Your task to perform on an android device: turn on priority inbox in the gmail app Image 0: 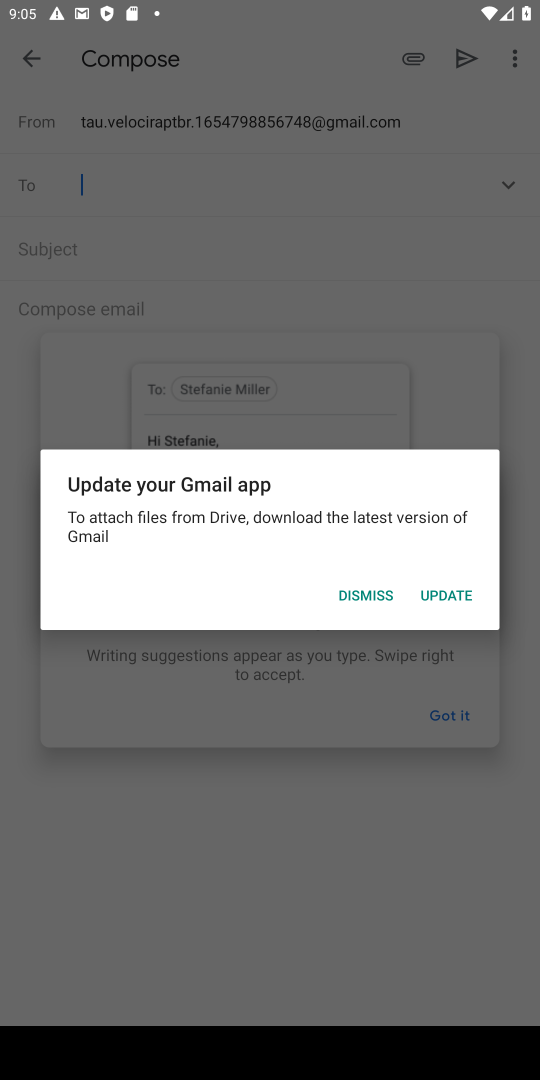
Step 0: click (449, 726)
Your task to perform on an android device: turn on priority inbox in the gmail app Image 1: 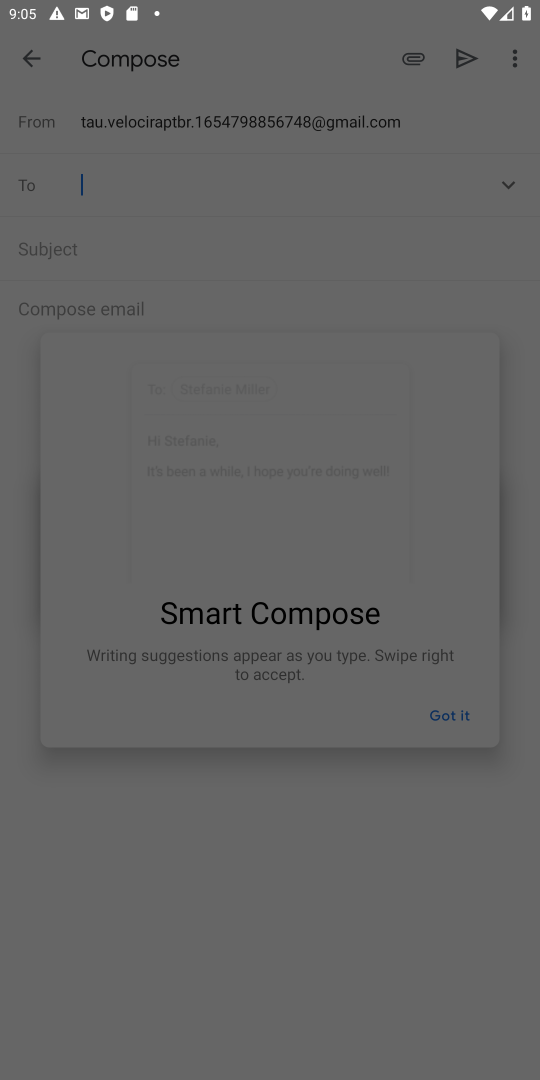
Step 1: click (406, 824)
Your task to perform on an android device: turn on priority inbox in the gmail app Image 2: 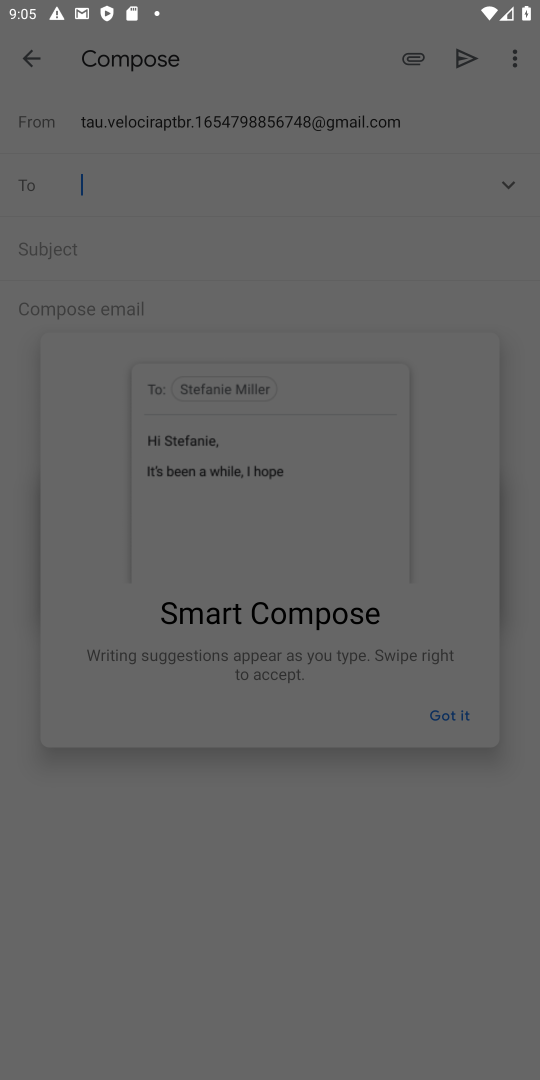
Step 2: click (457, 718)
Your task to perform on an android device: turn on priority inbox in the gmail app Image 3: 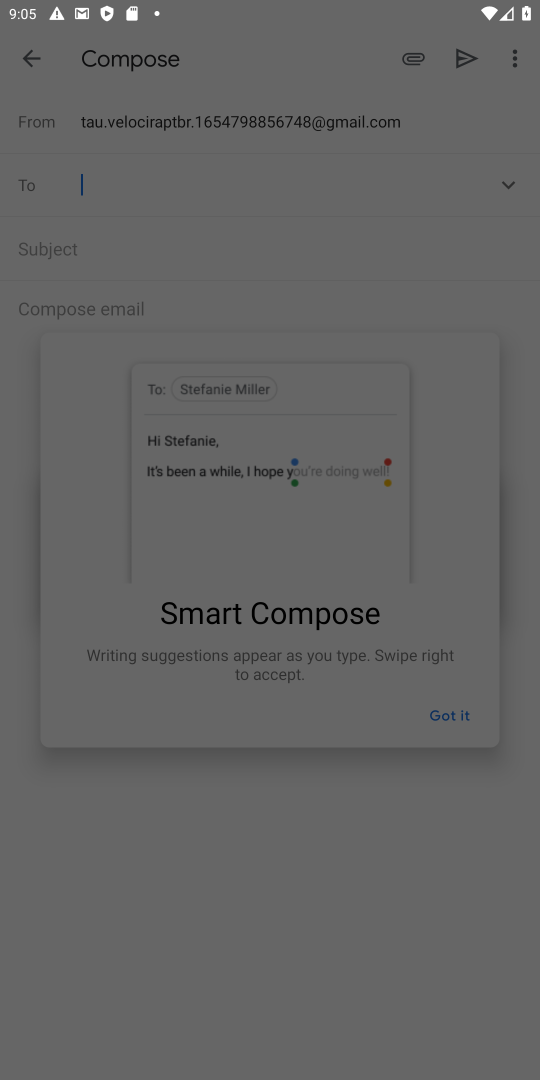
Step 3: click (457, 718)
Your task to perform on an android device: turn on priority inbox in the gmail app Image 4: 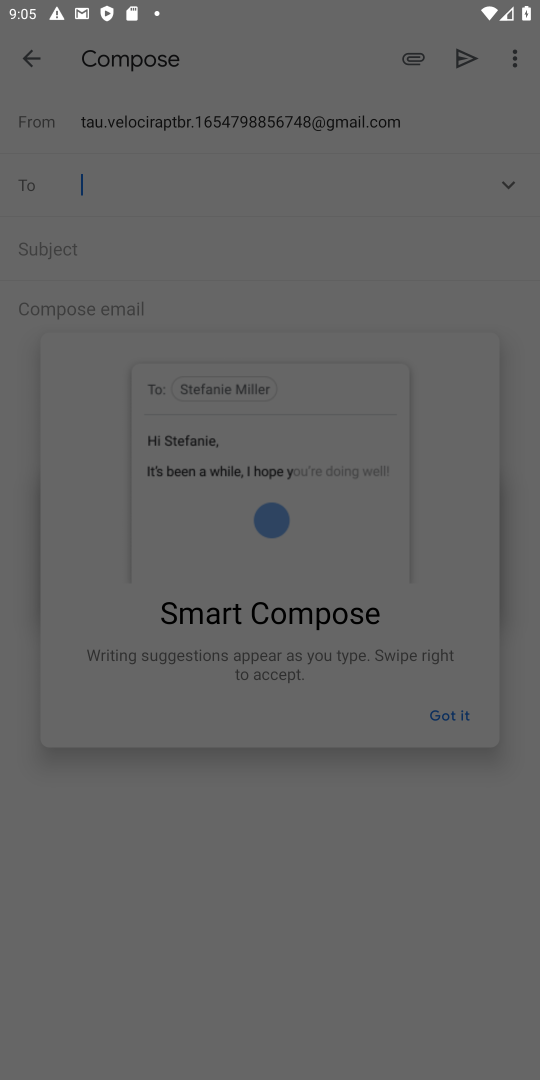
Step 4: press home button
Your task to perform on an android device: turn on priority inbox in the gmail app Image 5: 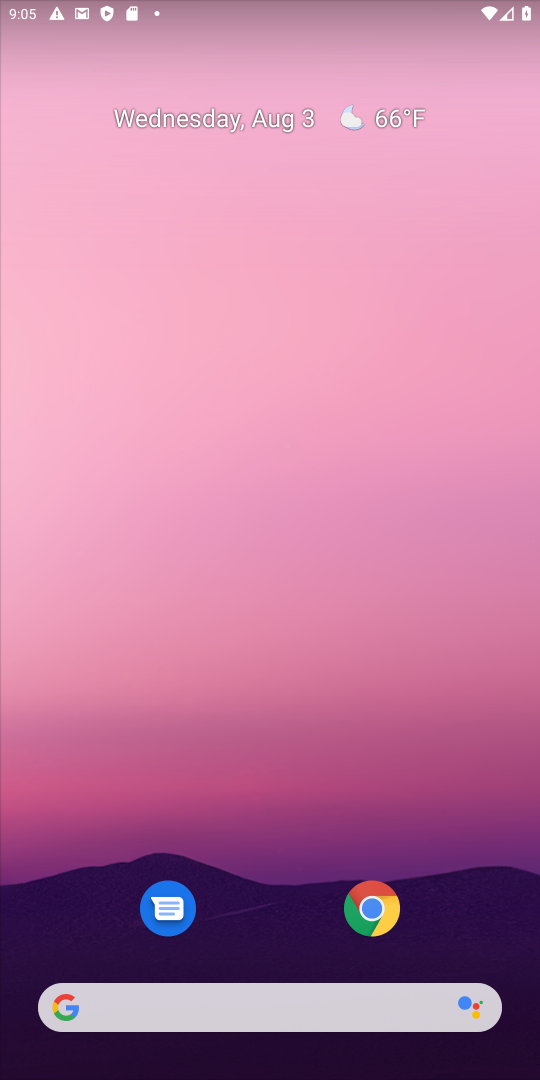
Step 5: drag from (262, 1009) to (351, 70)
Your task to perform on an android device: turn on priority inbox in the gmail app Image 6: 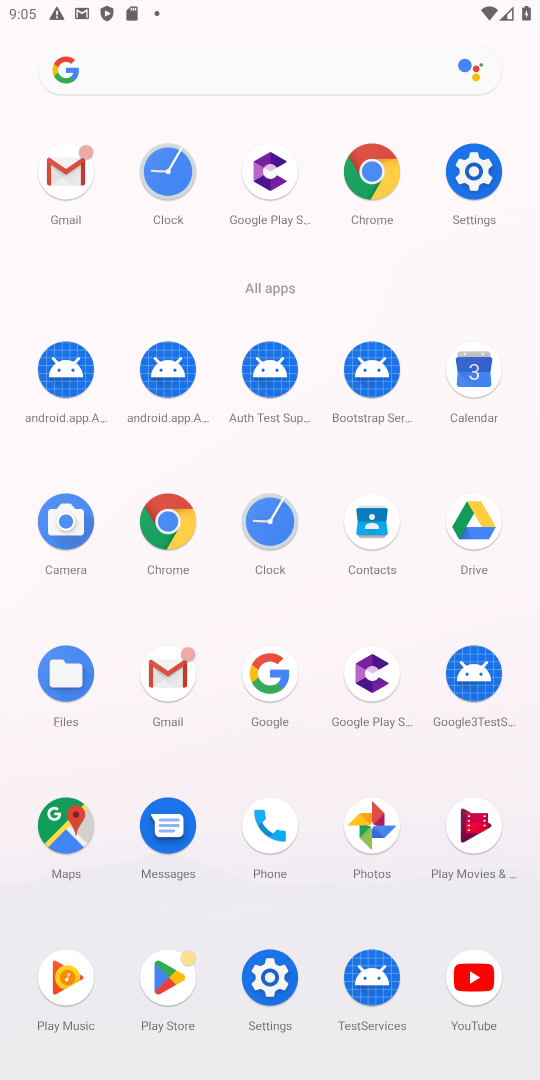
Step 6: click (175, 667)
Your task to perform on an android device: turn on priority inbox in the gmail app Image 7: 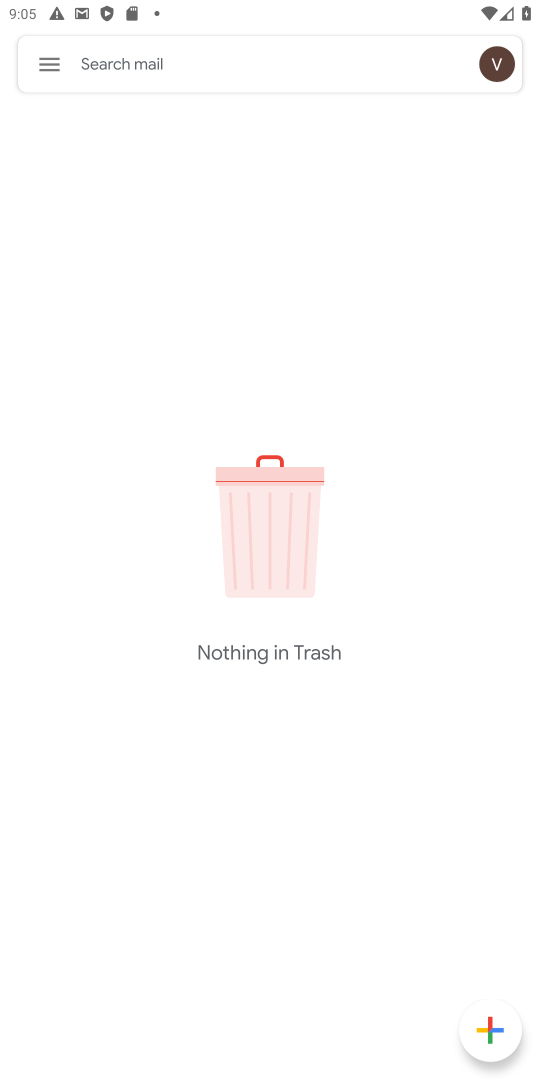
Step 7: click (45, 61)
Your task to perform on an android device: turn on priority inbox in the gmail app Image 8: 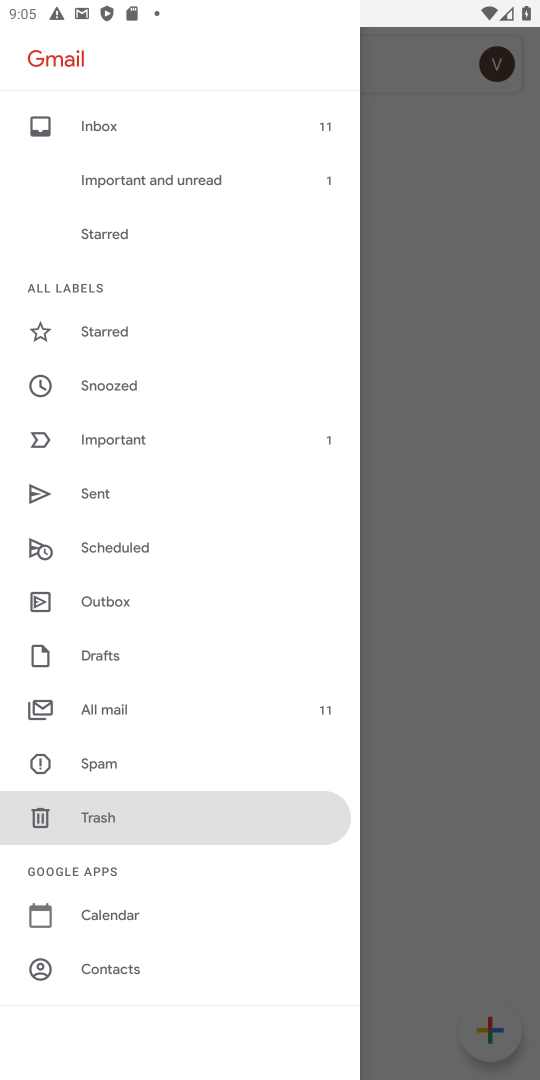
Step 8: drag from (178, 877) to (202, 509)
Your task to perform on an android device: turn on priority inbox in the gmail app Image 9: 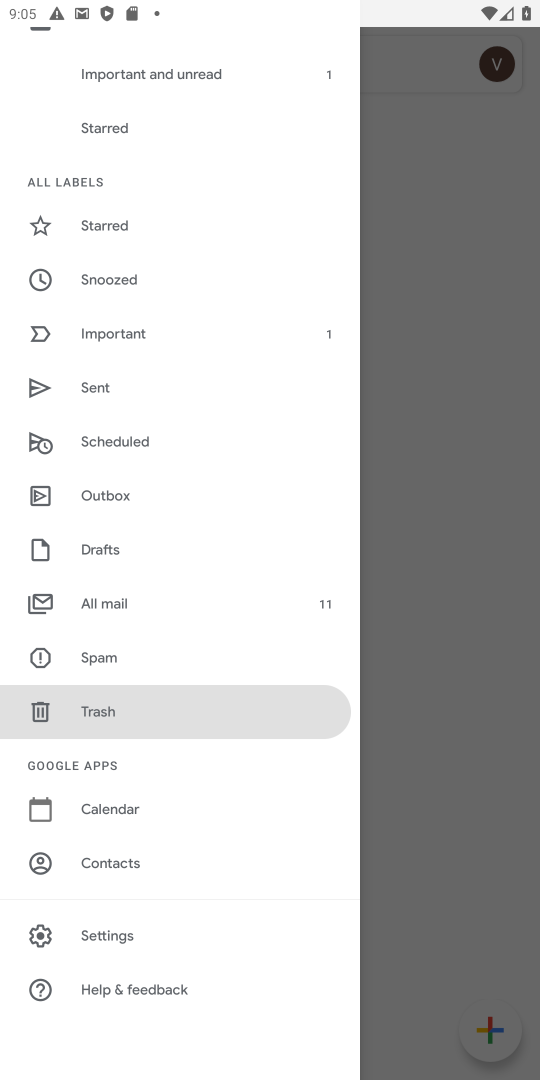
Step 9: click (87, 928)
Your task to perform on an android device: turn on priority inbox in the gmail app Image 10: 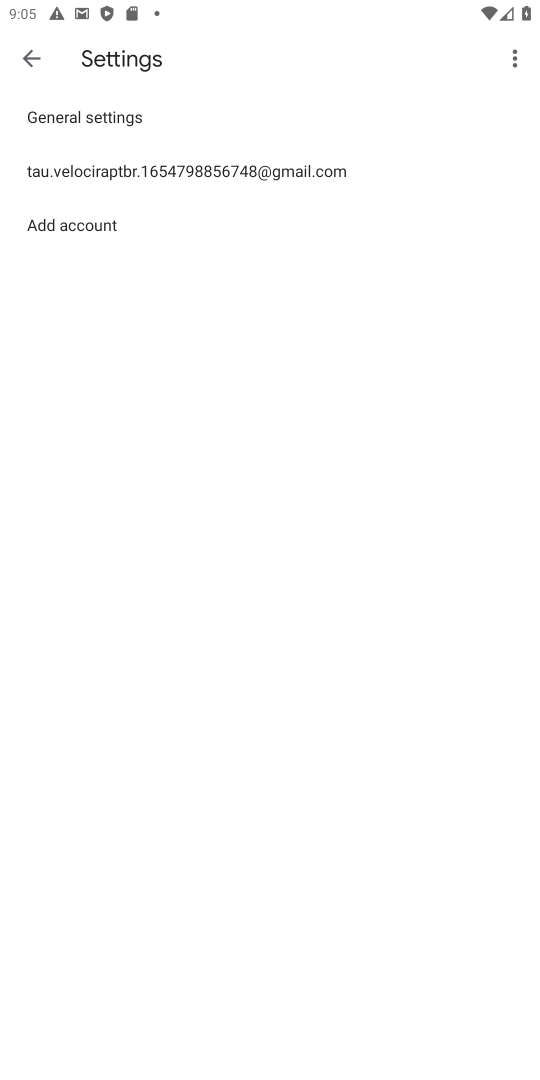
Step 10: click (127, 171)
Your task to perform on an android device: turn on priority inbox in the gmail app Image 11: 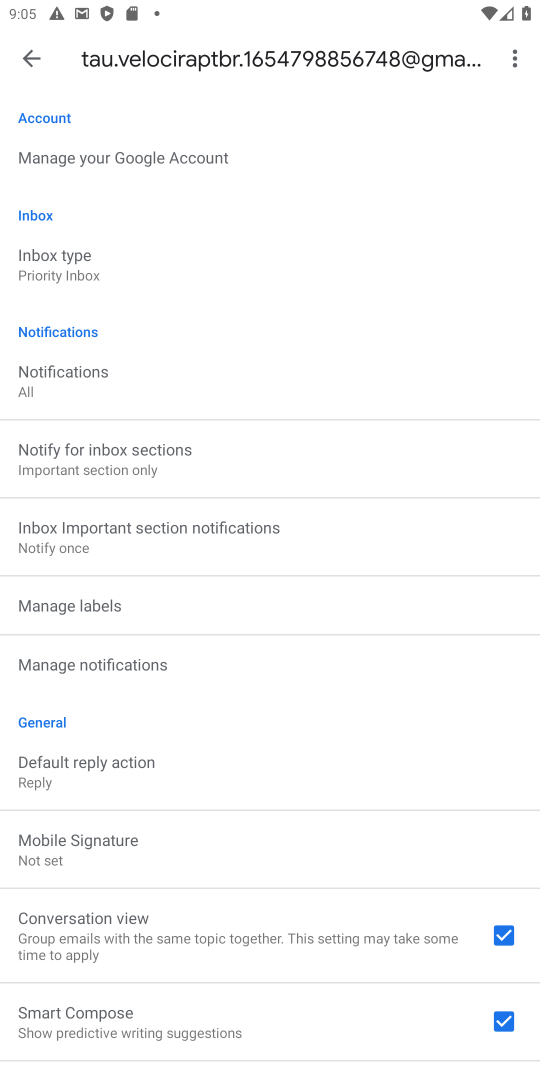
Step 11: task complete